Your task to perform on an android device: What's on my calendar tomorrow? Image 0: 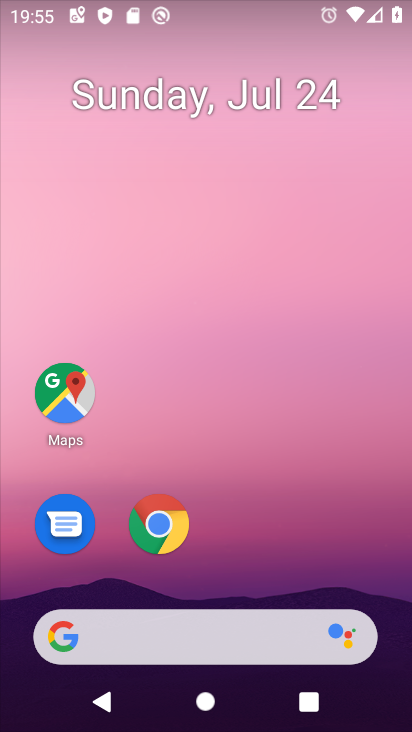
Step 0: drag from (267, 548) to (224, 0)
Your task to perform on an android device: What's on my calendar tomorrow? Image 1: 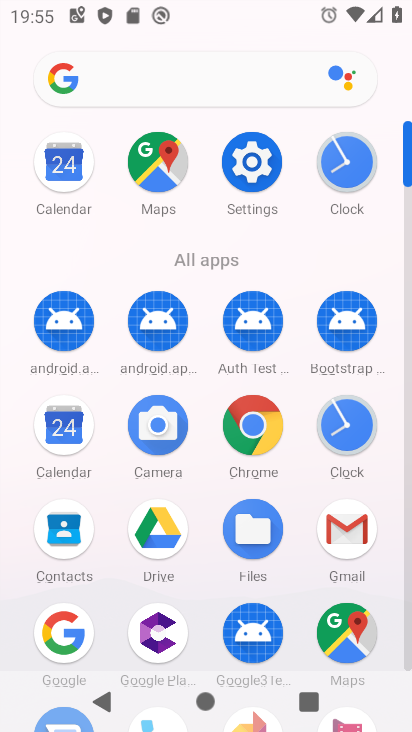
Step 1: click (60, 163)
Your task to perform on an android device: What's on my calendar tomorrow? Image 2: 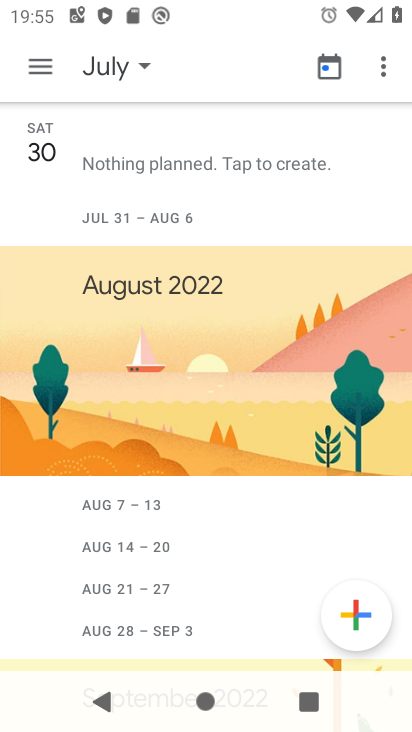
Step 2: click (42, 68)
Your task to perform on an android device: What's on my calendar tomorrow? Image 3: 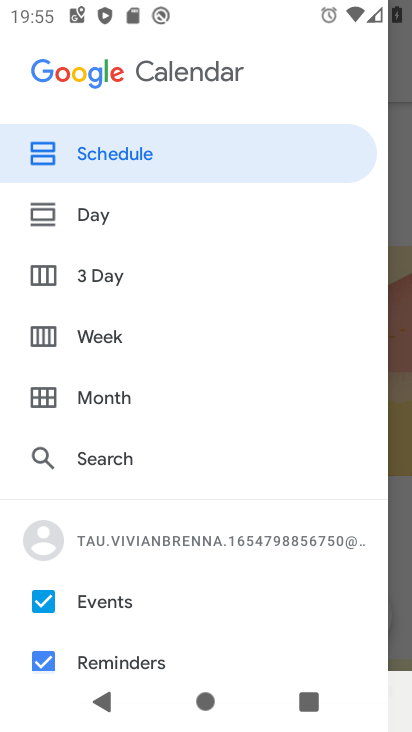
Step 3: click (52, 329)
Your task to perform on an android device: What's on my calendar tomorrow? Image 4: 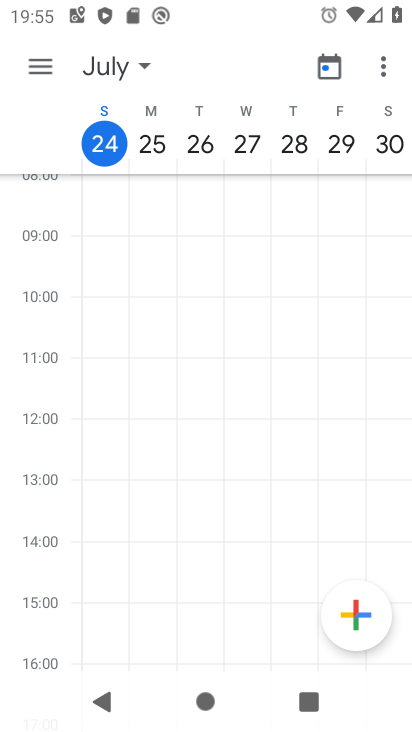
Step 4: task complete